Your task to perform on an android device: change the clock display to digital Image 0: 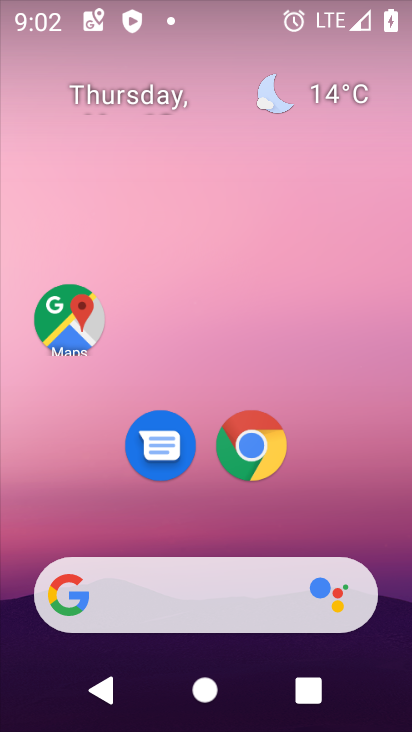
Step 0: drag from (238, 724) to (236, 11)
Your task to perform on an android device: change the clock display to digital Image 1: 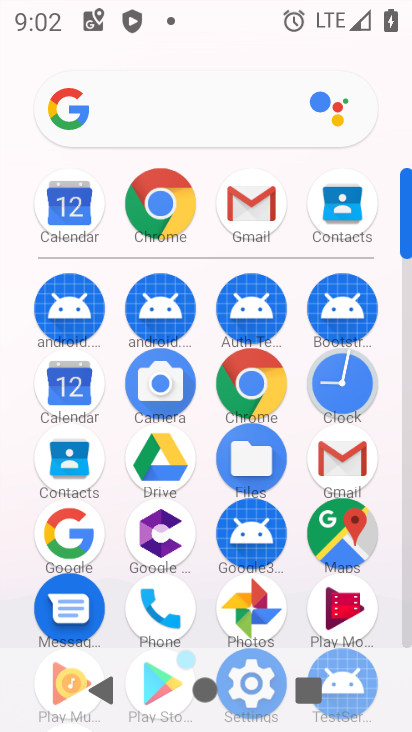
Step 1: click (344, 372)
Your task to perform on an android device: change the clock display to digital Image 2: 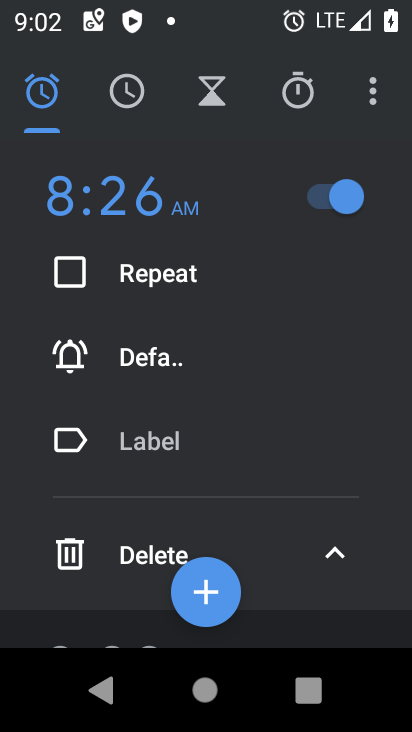
Step 2: click (374, 95)
Your task to perform on an android device: change the clock display to digital Image 3: 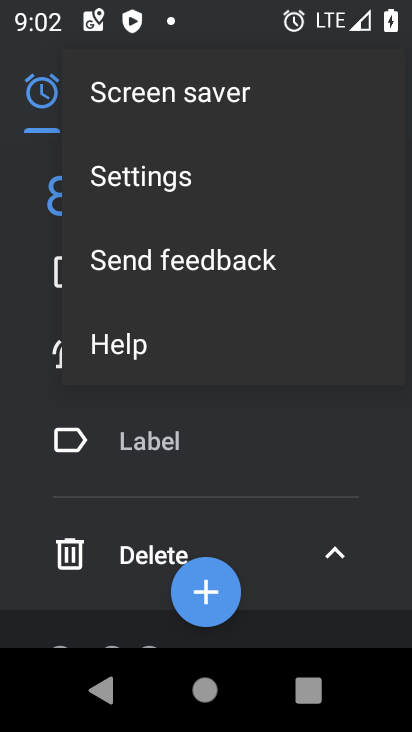
Step 3: click (145, 178)
Your task to perform on an android device: change the clock display to digital Image 4: 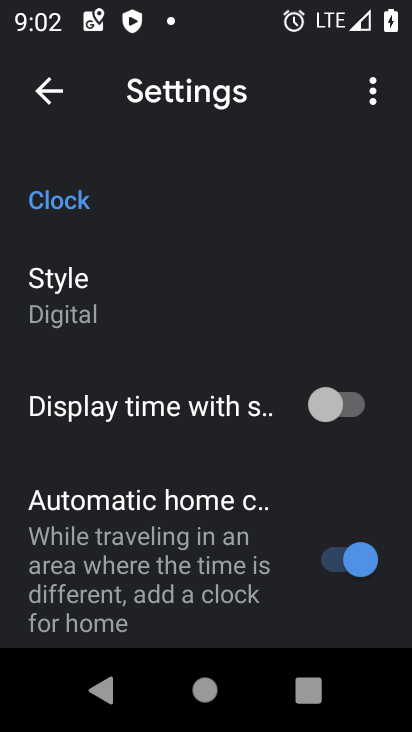
Step 4: task complete